Your task to perform on an android device: turn on translation in the chrome app Image 0: 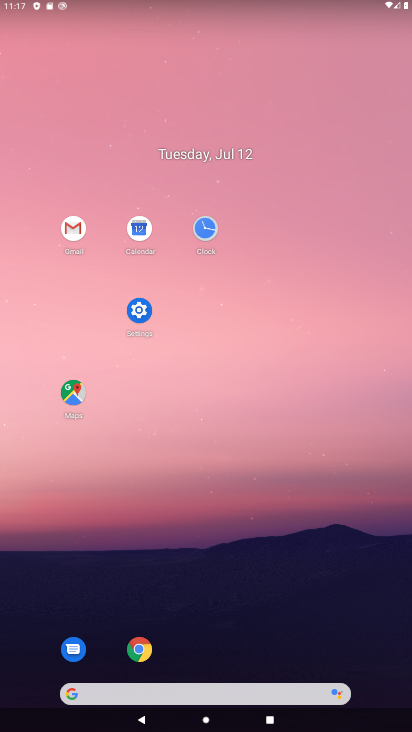
Step 0: click (137, 654)
Your task to perform on an android device: turn on translation in the chrome app Image 1: 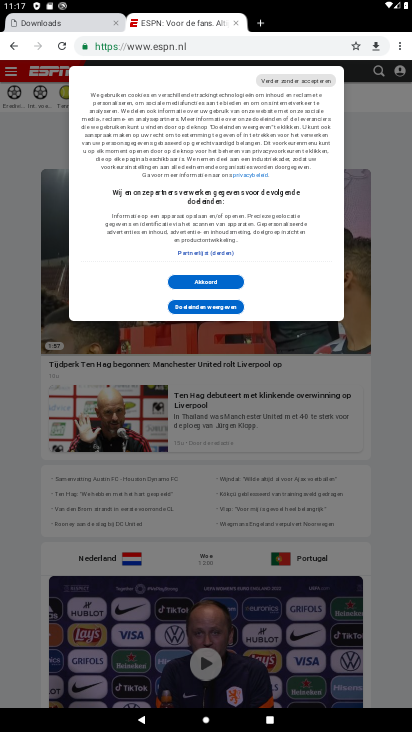
Step 1: click (402, 44)
Your task to perform on an android device: turn on translation in the chrome app Image 2: 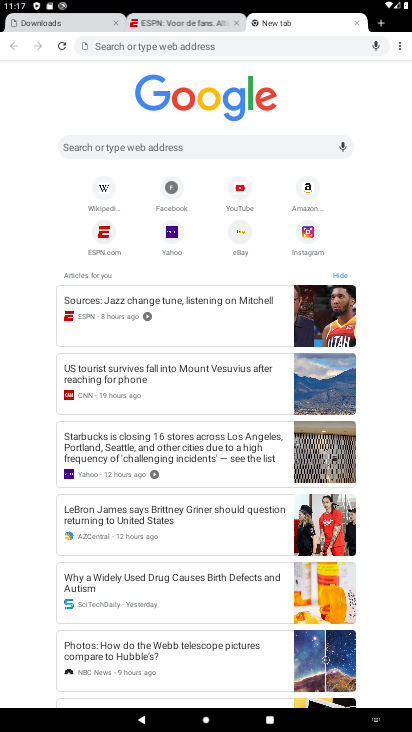
Step 2: click (395, 41)
Your task to perform on an android device: turn on translation in the chrome app Image 3: 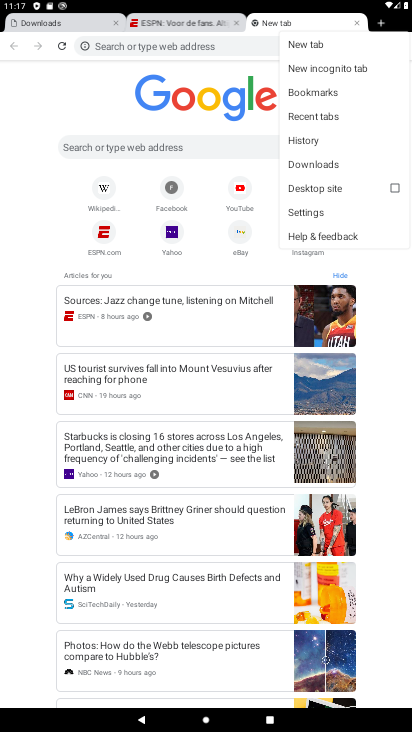
Step 3: click (316, 214)
Your task to perform on an android device: turn on translation in the chrome app Image 4: 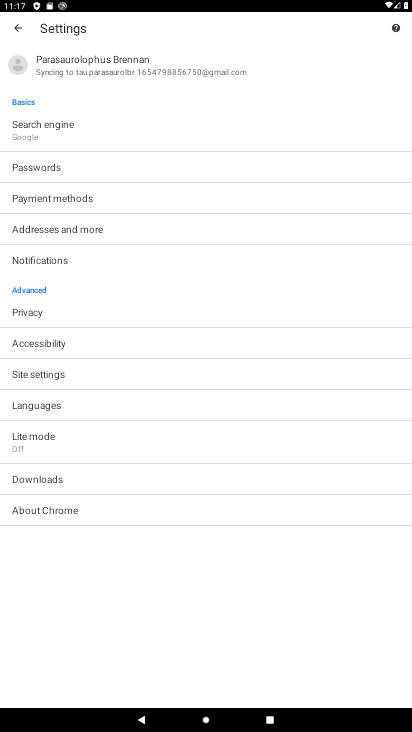
Step 4: click (105, 405)
Your task to perform on an android device: turn on translation in the chrome app Image 5: 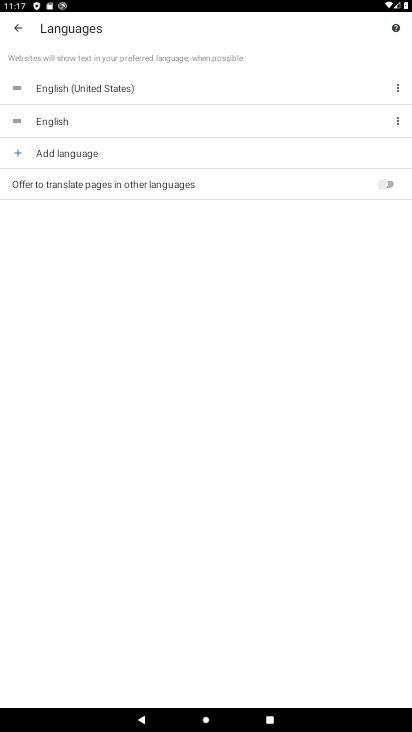
Step 5: click (373, 185)
Your task to perform on an android device: turn on translation in the chrome app Image 6: 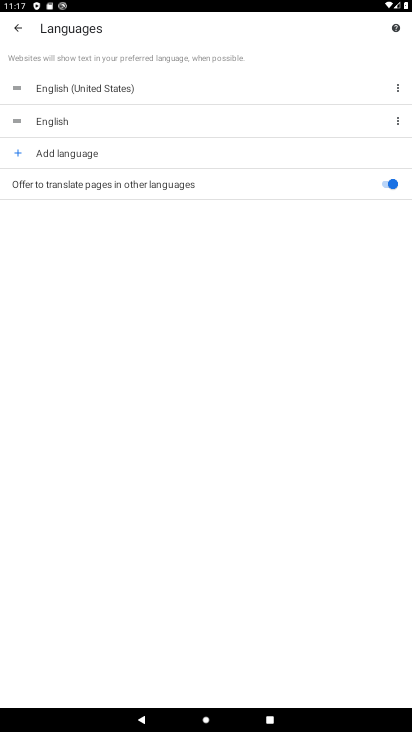
Step 6: task complete